Your task to perform on an android device: turn off airplane mode Image 0: 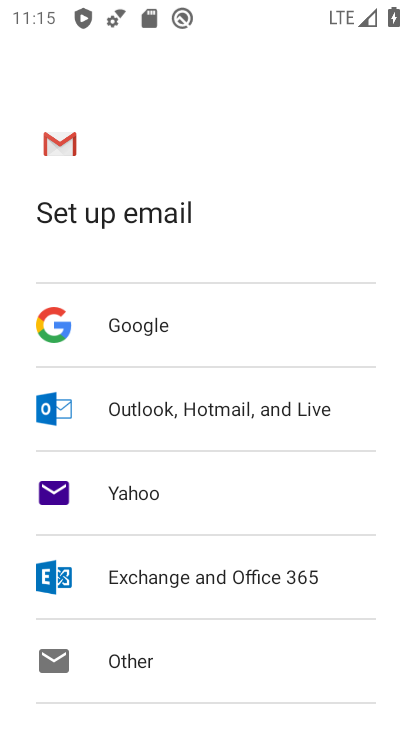
Step 0: press home button
Your task to perform on an android device: turn off airplane mode Image 1: 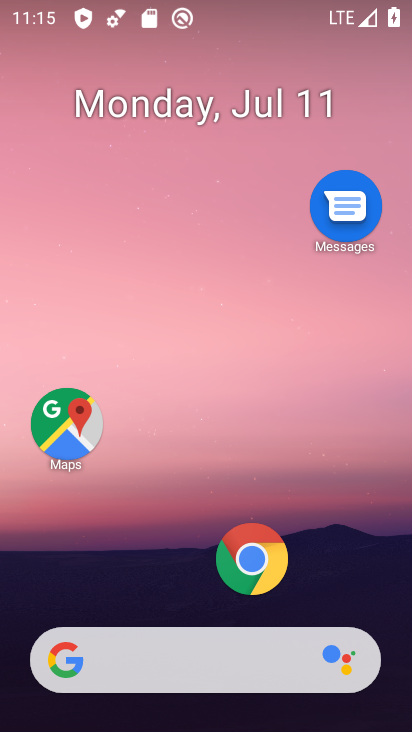
Step 1: drag from (360, 582) to (359, 98)
Your task to perform on an android device: turn off airplane mode Image 2: 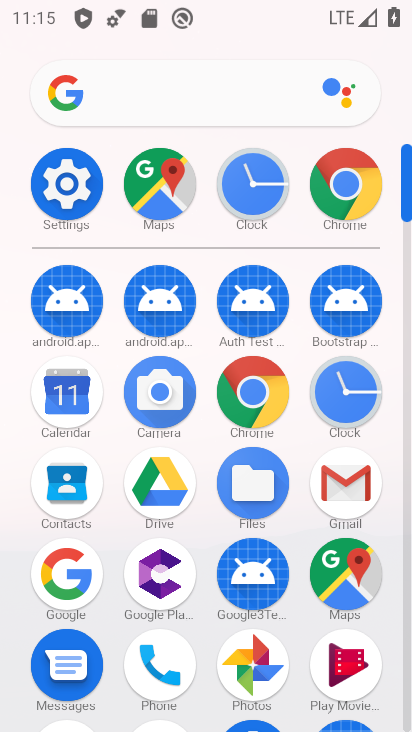
Step 2: click (77, 184)
Your task to perform on an android device: turn off airplane mode Image 3: 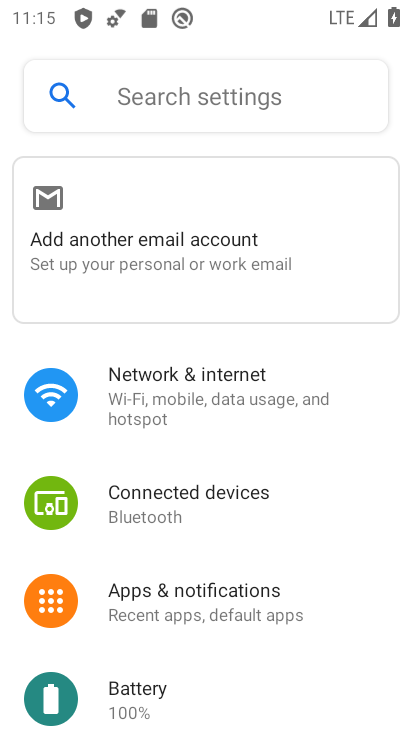
Step 3: click (323, 407)
Your task to perform on an android device: turn off airplane mode Image 4: 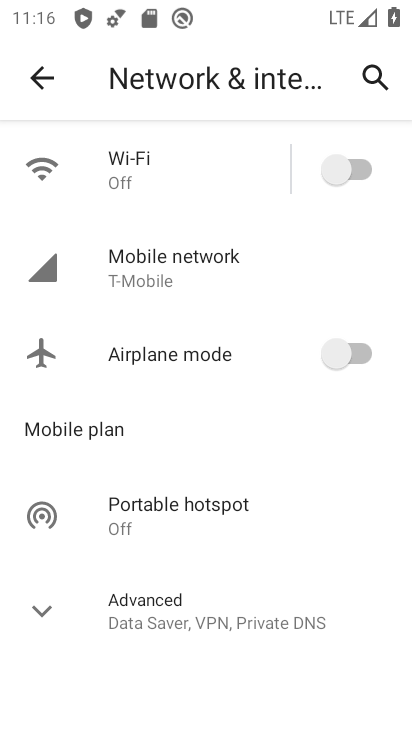
Step 4: task complete